Your task to perform on an android device: Do I have any events today? Image 0: 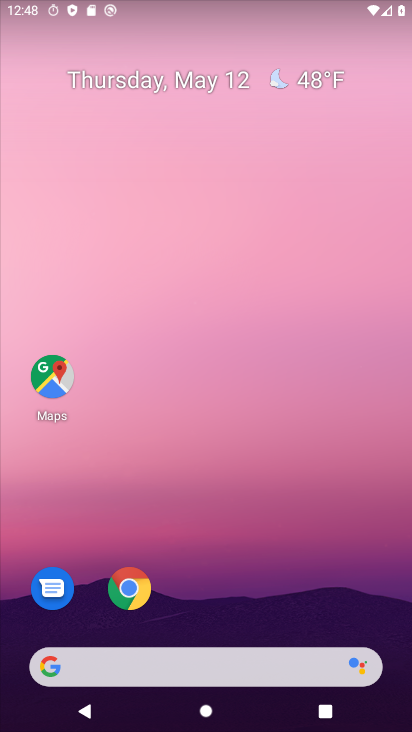
Step 0: drag from (245, 616) to (248, 126)
Your task to perform on an android device: Do I have any events today? Image 1: 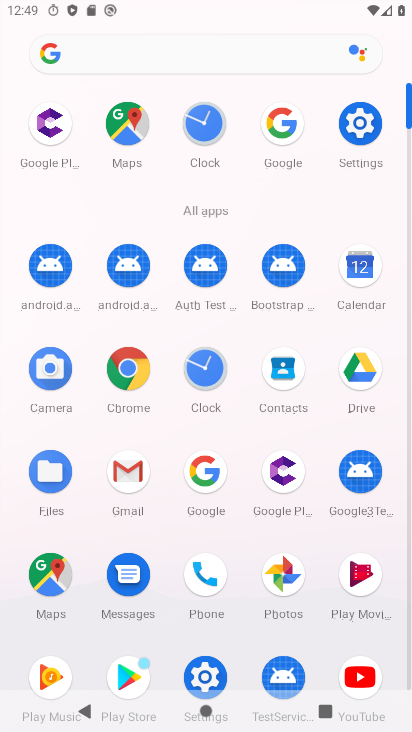
Step 1: click (362, 265)
Your task to perform on an android device: Do I have any events today? Image 2: 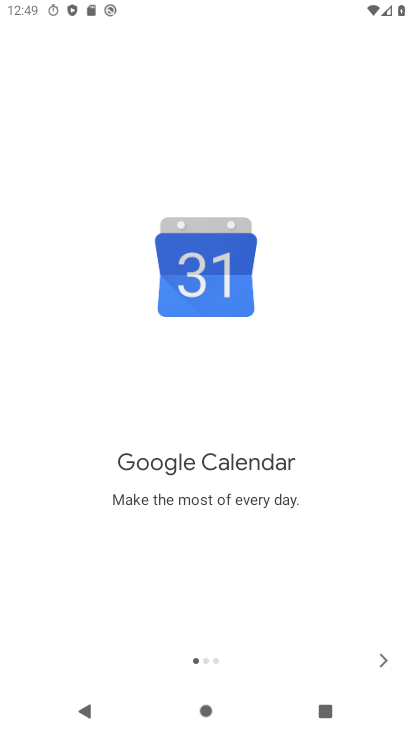
Step 2: click (380, 658)
Your task to perform on an android device: Do I have any events today? Image 3: 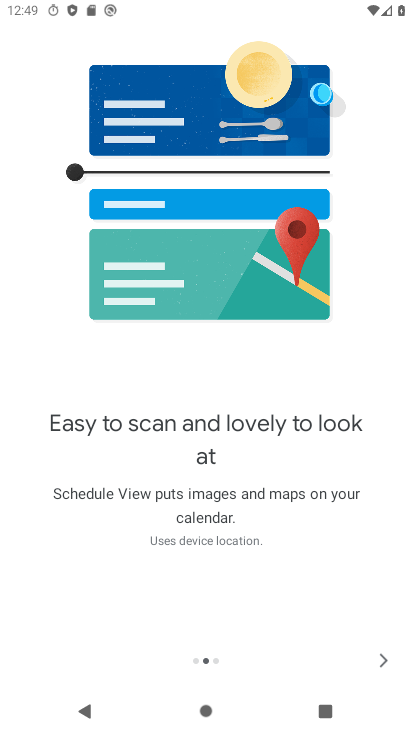
Step 3: click (380, 658)
Your task to perform on an android device: Do I have any events today? Image 4: 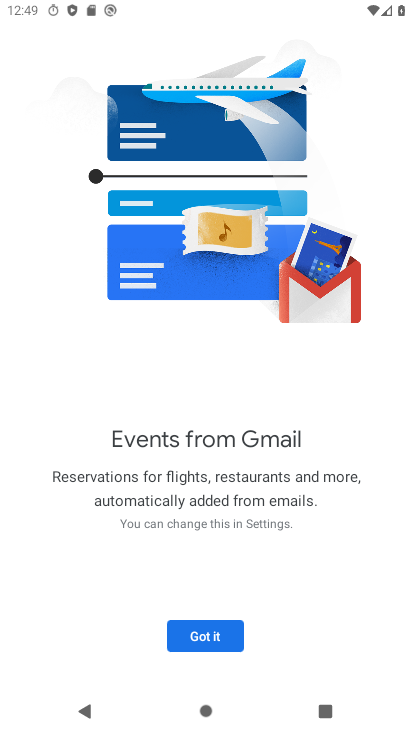
Step 4: click (221, 640)
Your task to perform on an android device: Do I have any events today? Image 5: 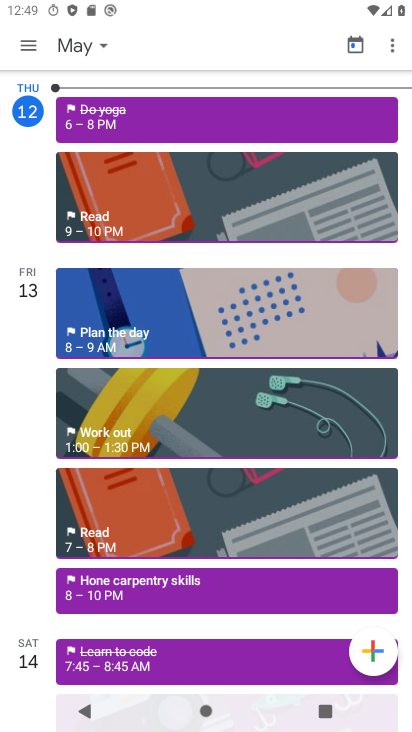
Step 5: click (92, 41)
Your task to perform on an android device: Do I have any events today? Image 6: 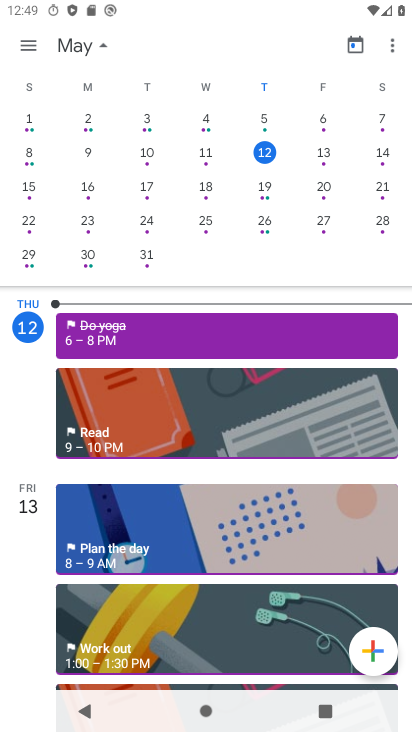
Step 6: click (210, 154)
Your task to perform on an android device: Do I have any events today? Image 7: 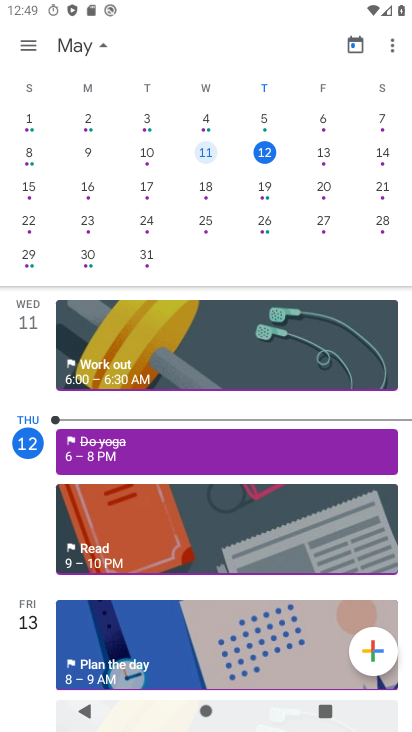
Step 7: click (210, 155)
Your task to perform on an android device: Do I have any events today? Image 8: 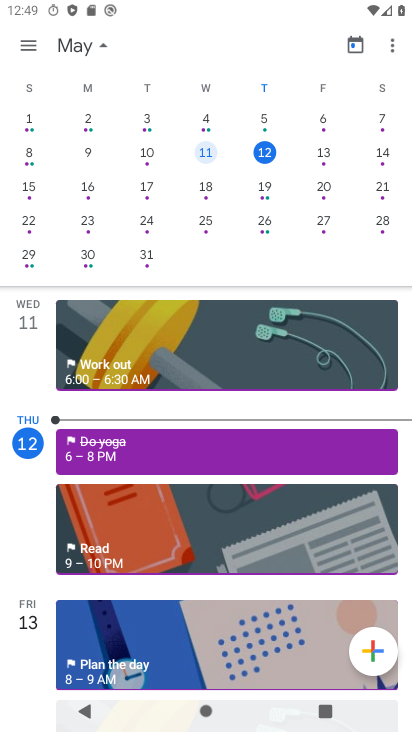
Step 8: click (204, 150)
Your task to perform on an android device: Do I have any events today? Image 9: 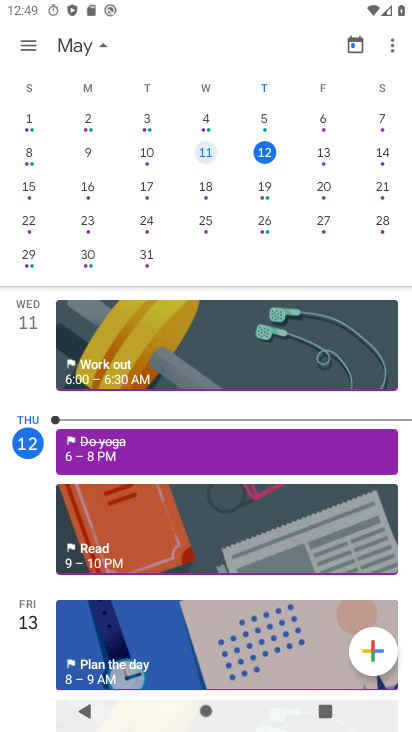
Step 9: click (262, 154)
Your task to perform on an android device: Do I have any events today? Image 10: 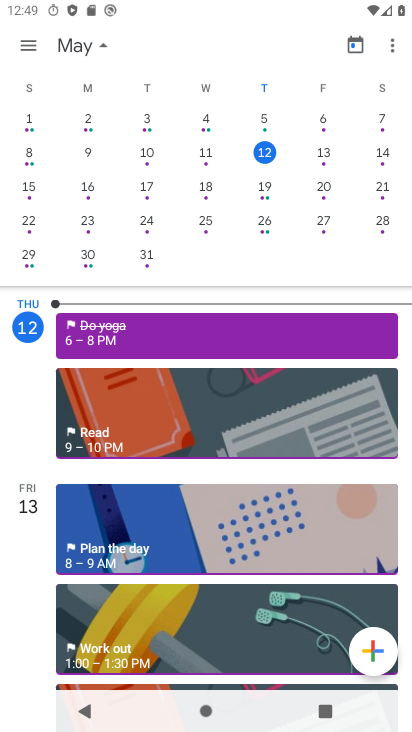
Step 10: task complete